Your task to perform on an android device: set the timer Image 0: 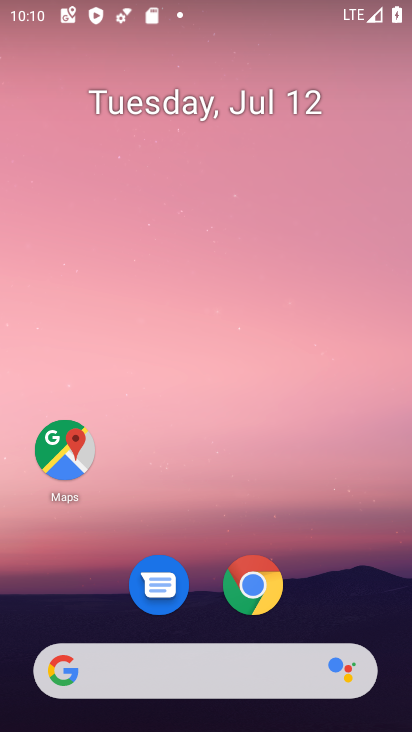
Step 0: click (410, 467)
Your task to perform on an android device: set the timer Image 1: 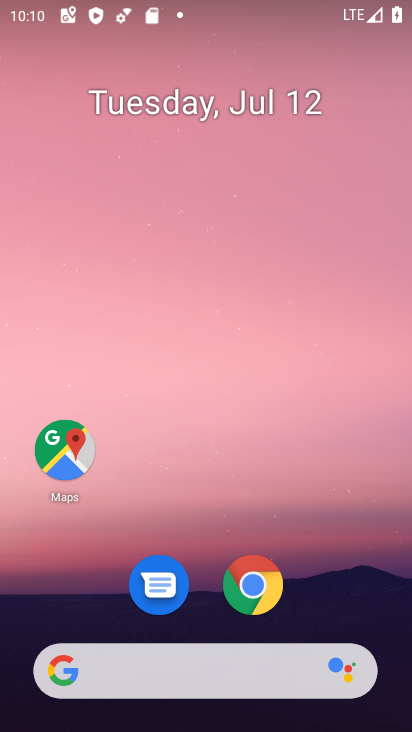
Step 1: drag from (213, 673) to (361, 86)
Your task to perform on an android device: set the timer Image 2: 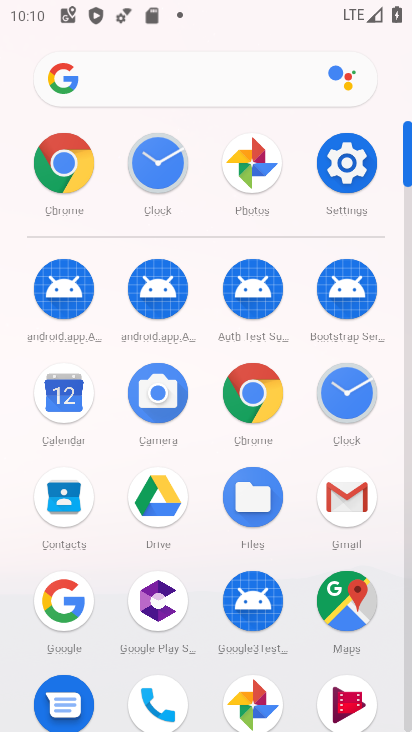
Step 2: click (160, 165)
Your task to perform on an android device: set the timer Image 3: 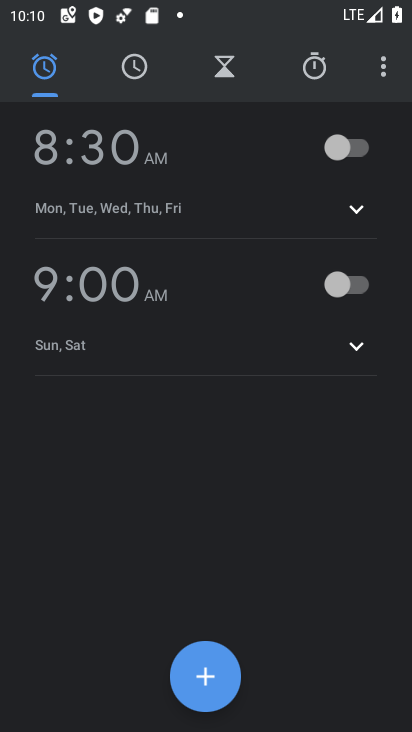
Step 3: click (223, 72)
Your task to perform on an android device: set the timer Image 4: 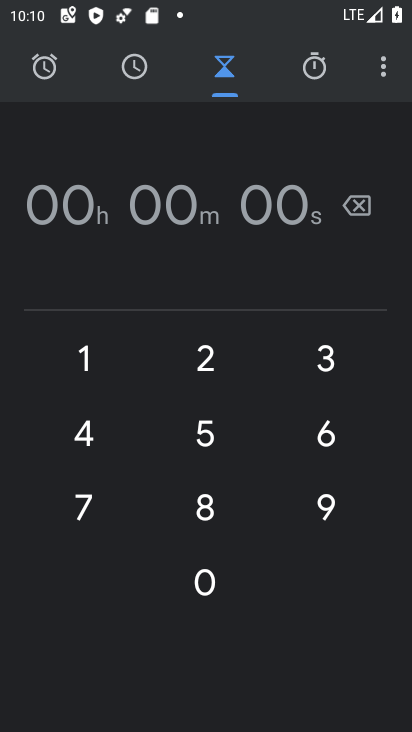
Step 4: click (86, 366)
Your task to perform on an android device: set the timer Image 5: 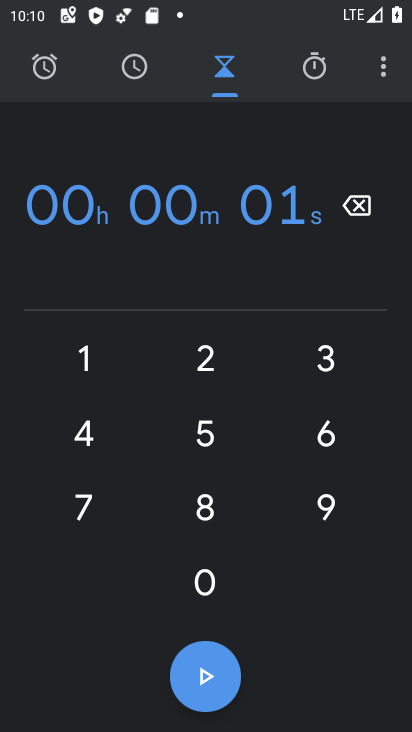
Step 5: click (211, 355)
Your task to perform on an android device: set the timer Image 6: 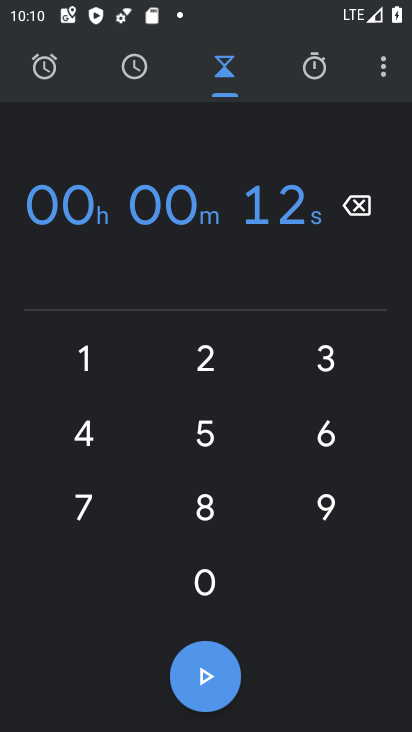
Step 6: click (211, 687)
Your task to perform on an android device: set the timer Image 7: 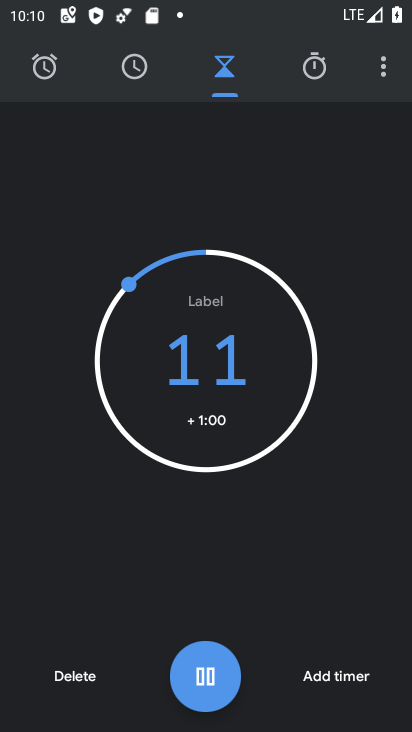
Step 7: click (211, 687)
Your task to perform on an android device: set the timer Image 8: 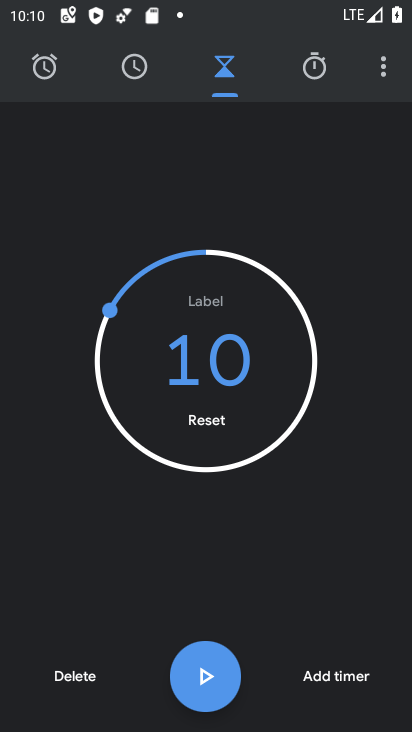
Step 8: task complete